Your task to perform on an android device: turn off picture-in-picture Image 0: 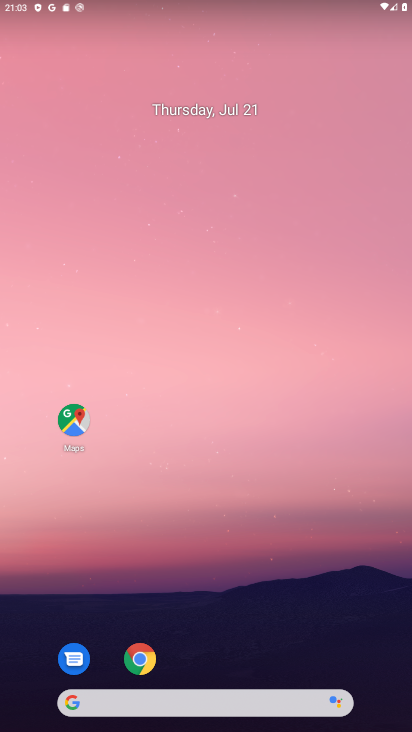
Step 0: press home button
Your task to perform on an android device: turn off picture-in-picture Image 1: 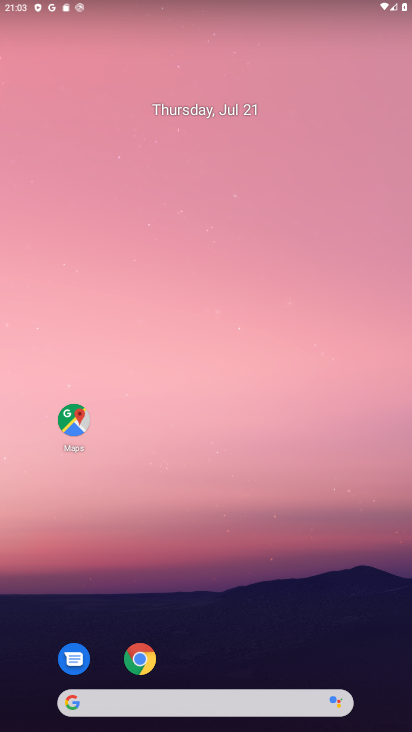
Step 1: click (145, 651)
Your task to perform on an android device: turn off picture-in-picture Image 2: 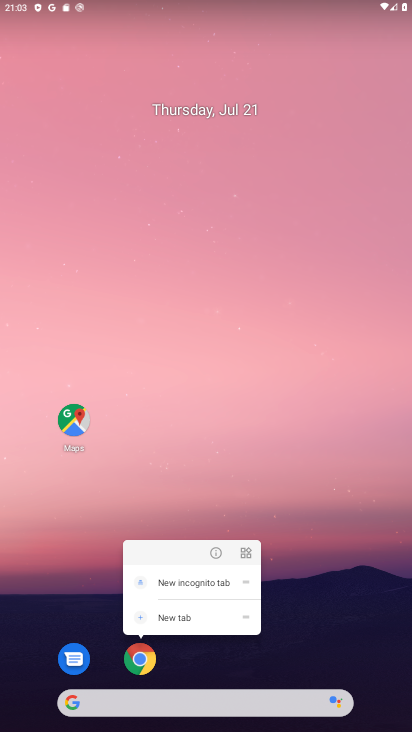
Step 2: click (214, 541)
Your task to perform on an android device: turn off picture-in-picture Image 3: 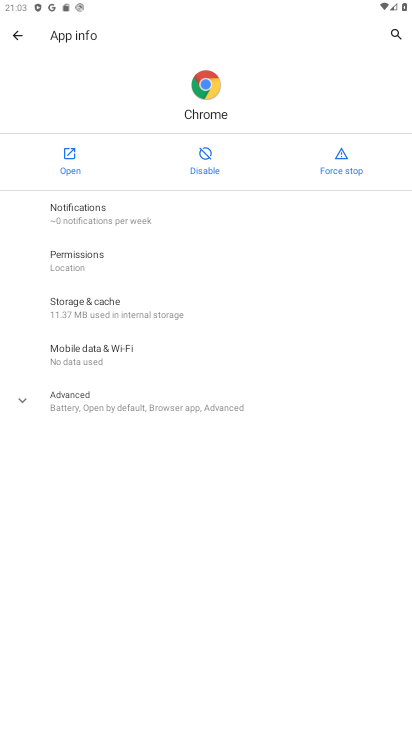
Step 3: click (67, 405)
Your task to perform on an android device: turn off picture-in-picture Image 4: 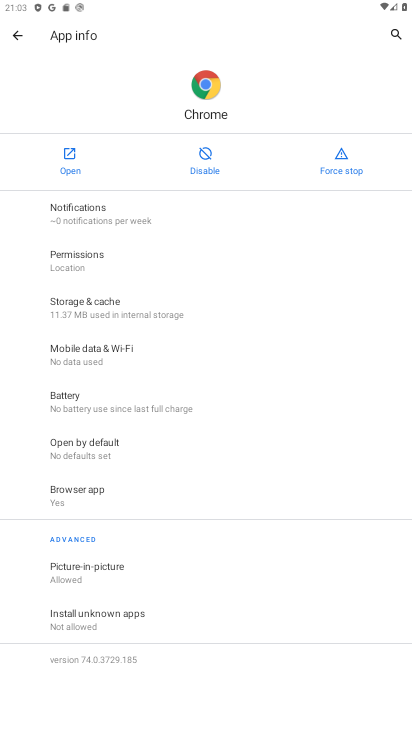
Step 4: click (81, 560)
Your task to perform on an android device: turn off picture-in-picture Image 5: 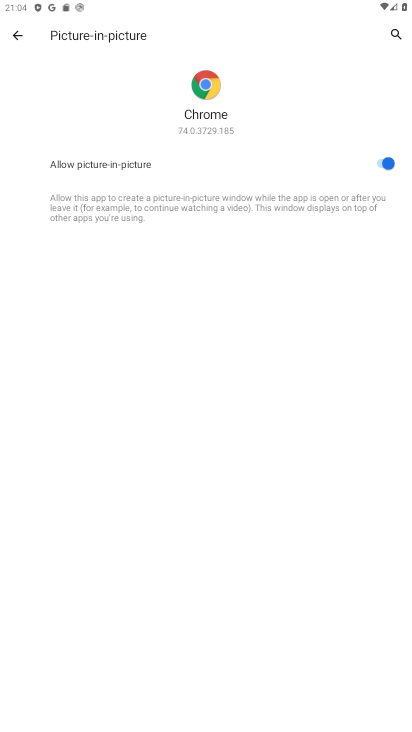
Step 5: click (326, 171)
Your task to perform on an android device: turn off picture-in-picture Image 6: 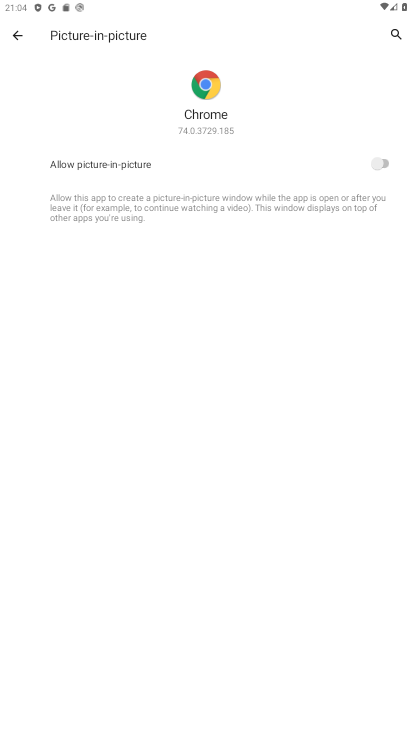
Step 6: task complete